Your task to perform on an android device: Open Chrome and go to the settings page Image 0: 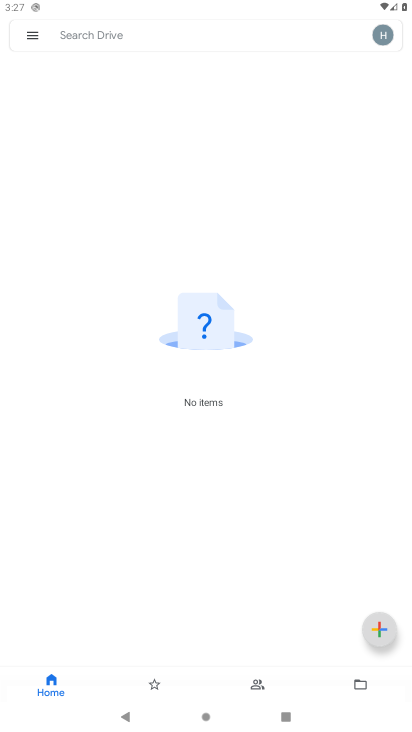
Step 0: press home button
Your task to perform on an android device: Open Chrome and go to the settings page Image 1: 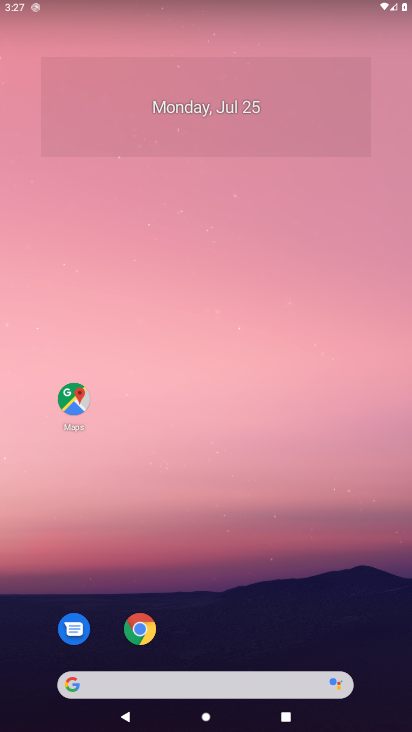
Step 1: drag from (27, 713) to (262, 198)
Your task to perform on an android device: Open Chrome and go to the settings page Image 2: 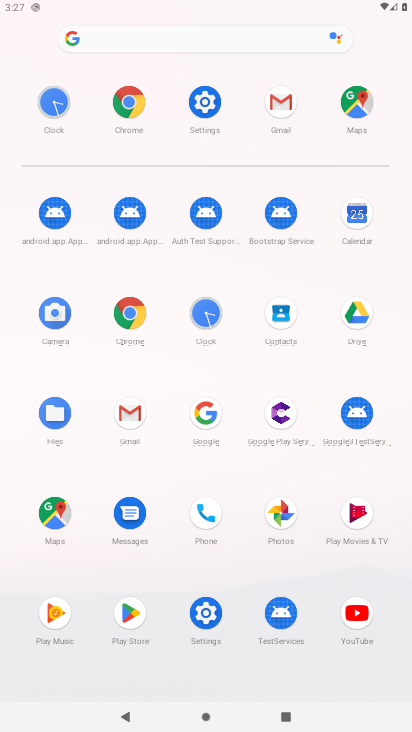
Step 2: click (128, 312)
Your task to perform on an android device: Open Chrome and go to the settings page Image 3: 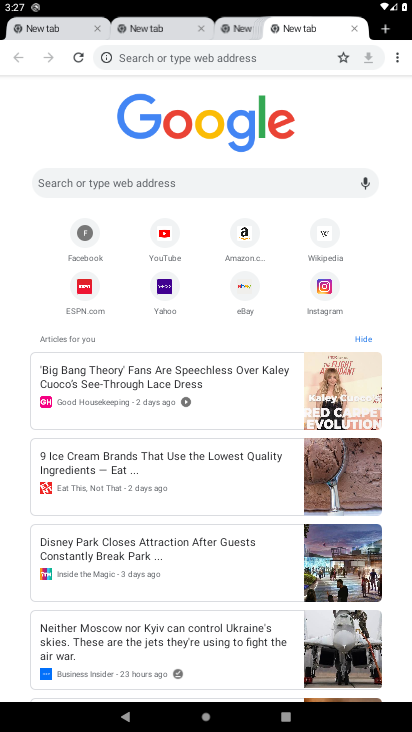
Step 3: click (393, 50)
Your task to perform on an android device: Open Chrome and go to the settings page Image 4: 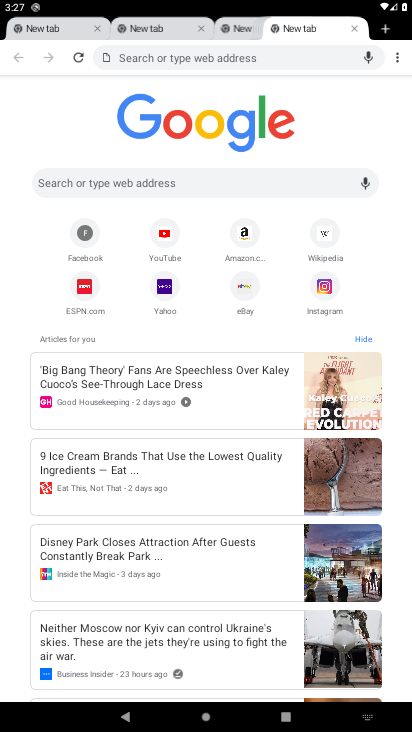
Step 4: click (396, 59)
Your task to perform on an android device: Open Chrome and go to the settings page Image 5: 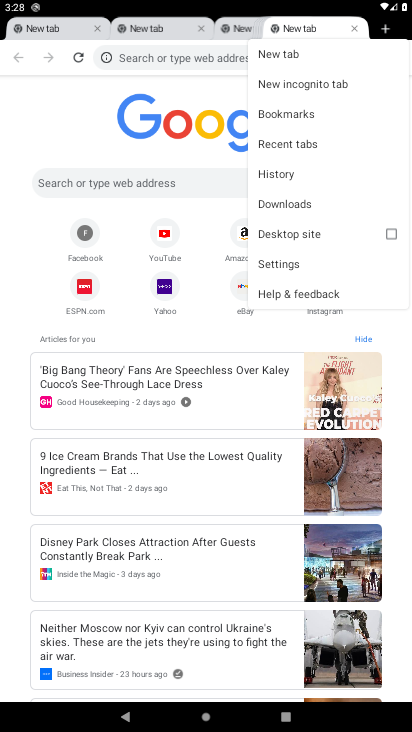
Step 5: click (288, 260)
Your task to perform on an android device: Open Chrome and go to the settings page Image 6: 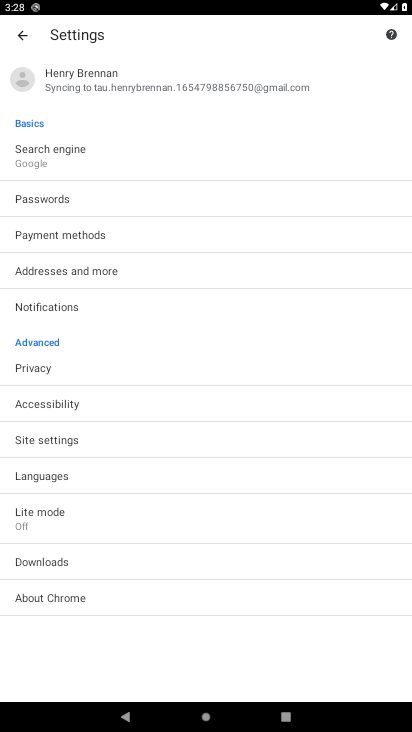
Step 6: task complete